Your task to perform on an android device: Search for vegetarian restaurants on Maps Image 0: 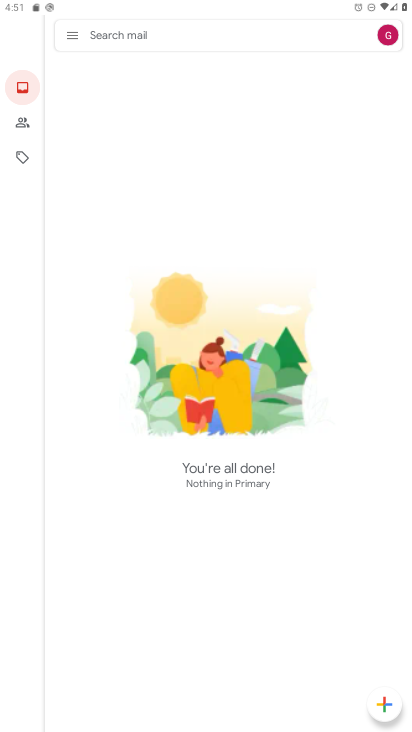
Step 0: press home button
Your task to perform on an android device: Search for vegetarian restaurants on Maps Image 1: 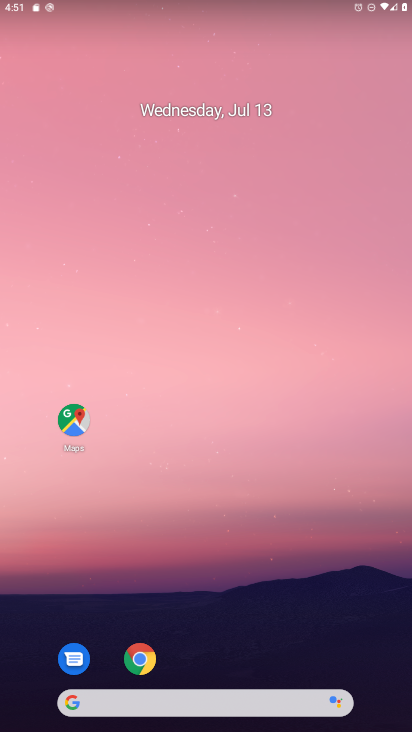
Step 1: drag from (307, 514) to (276, 65)
Your task to perform on an android device: Search for vegetarian restaurants on Maps Image 2: 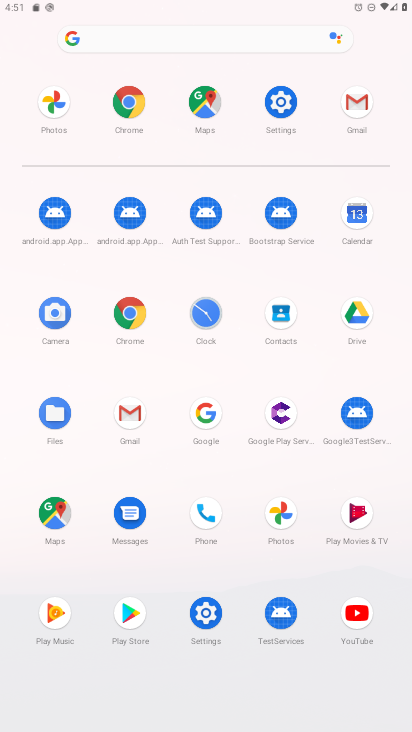
Step 2: click (358, 419)
Your task to perform on an android device: Search for vegetarian restaurants on Maps Image 3: 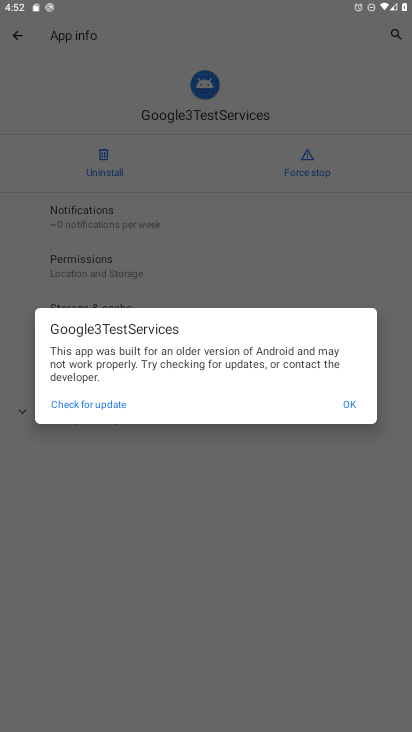
Step 3: press back button
Your task to perform on an android device: Search for vegetarian restaurants on Maps Image 4: 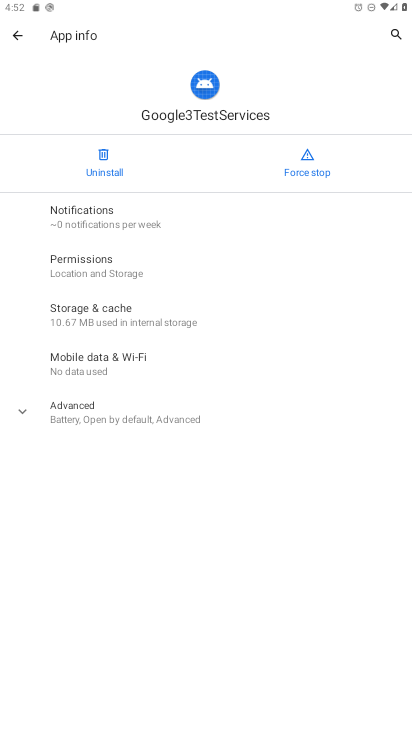
Step 4: press back button
Your task to perform on an android device: Search for vegetarian restaurants on Maps Image 5: 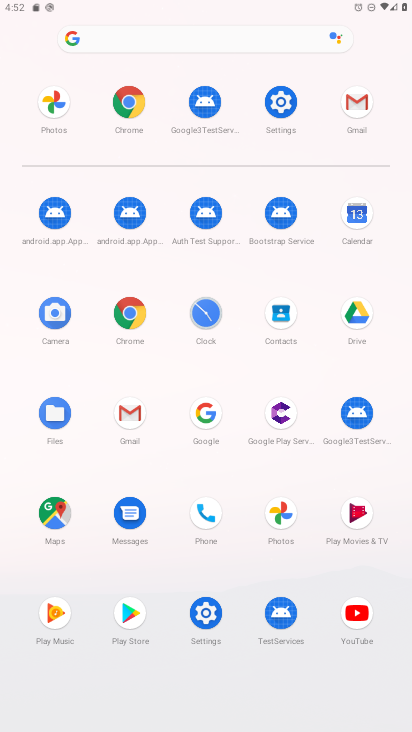
Step 5: click (58, 512)
Your task to perform on an android device: Search for vegetarian restaurants on Maps Image 6: 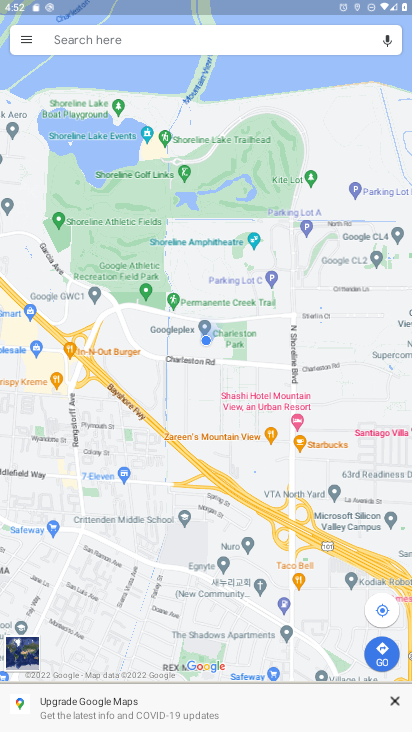
Step 6: click (155, 42)
Your task to perform on an android device: Search for vegetarian restaurants on Maps Image 7: 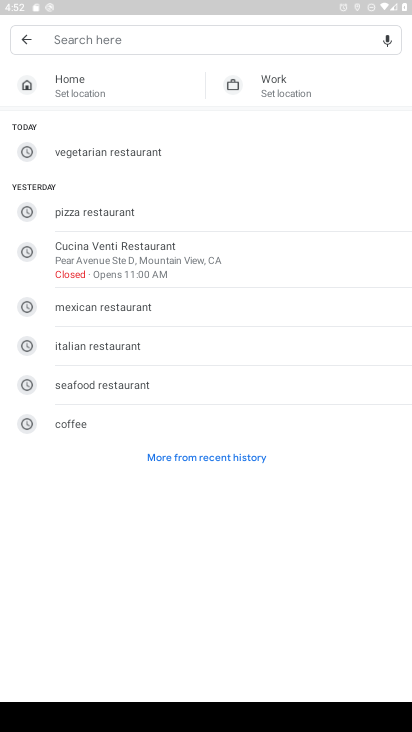
Step 7: click (145, 150)
Your task to perform on an android device: Search for vegetarian restaurants on Maps Image 8: 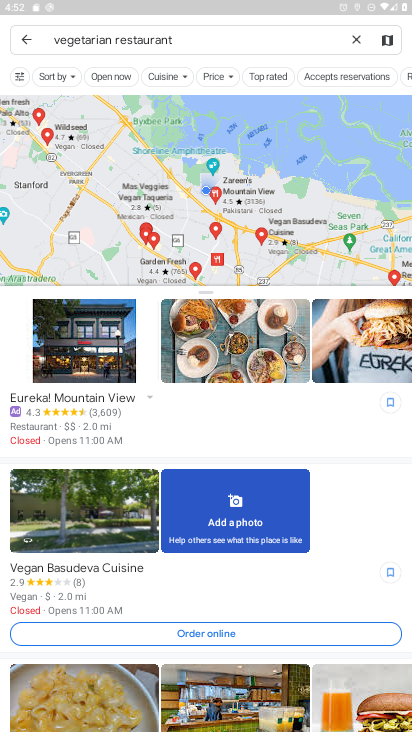
Step 8: task complete